Your task to perform on an android device: open a bookmark in the chrome app Image 0: 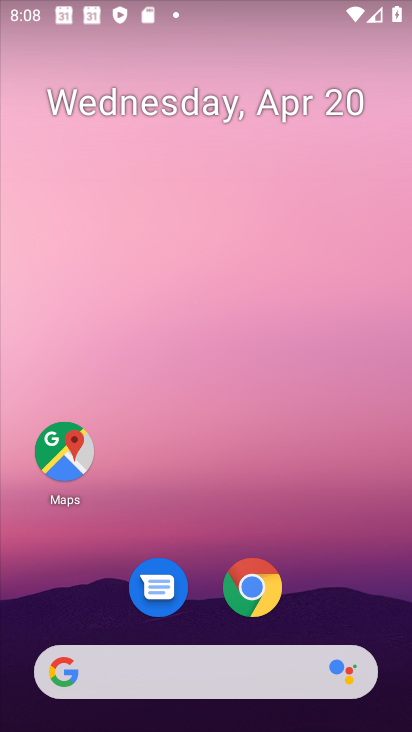
Step 0: drag from (344, 597) to (354, 197)
Your task to perform on an android device: open a bookmark in the chrome app Image 1: 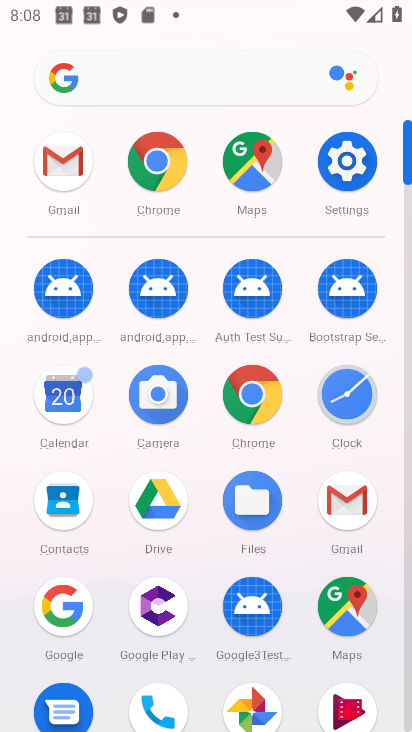
Step 1: click (265, 396)
Your task to perform on an android device: open a bookmark in the chrome app Image 2: 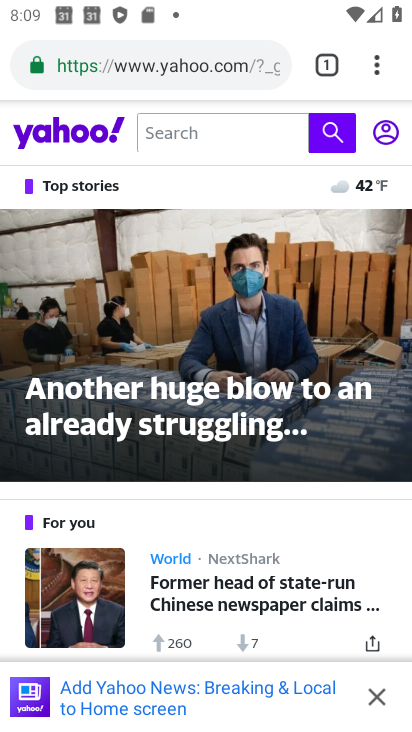
Step 2: click (378, 62)
Your task to perform on an android device: open a bookmark in the chrome app Image 3: 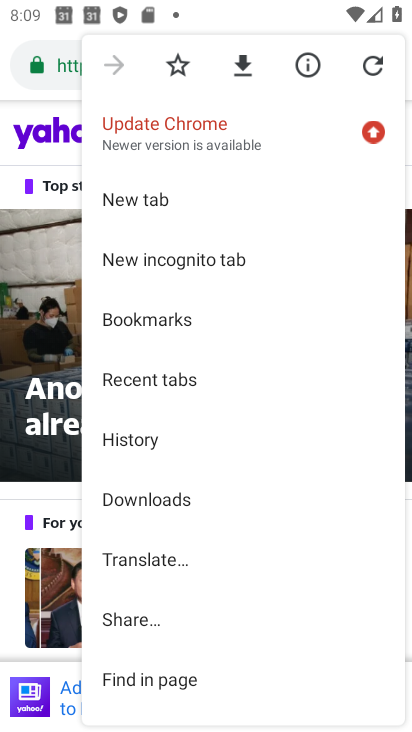
Step 3: click (182, 319)
Your task to perform on an android device: open a bookmark in the chrome app Image 4: 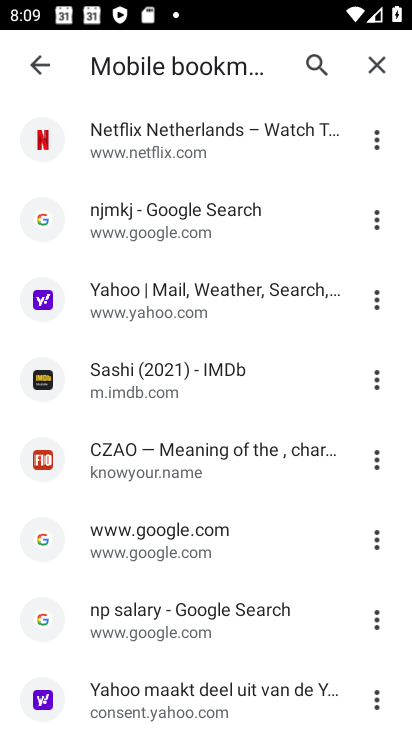
Step 4: click (215, 303)
Your task to perform on an android device: open a bookmark in the chrome app Image 5: 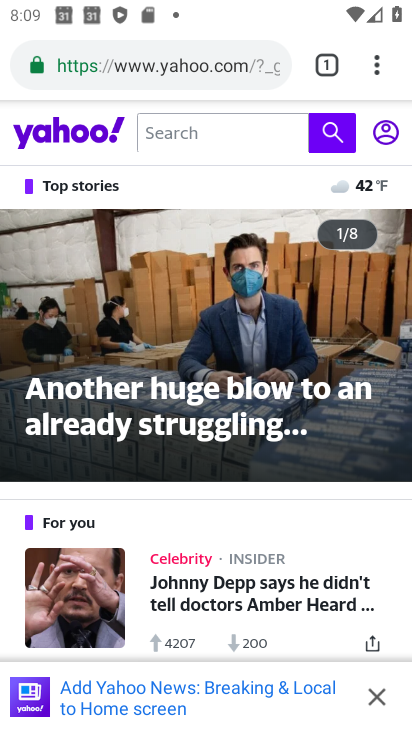
Step 5: task complete